Your task to perform on an android device: Play the last video I watched on Youtube Image 0: 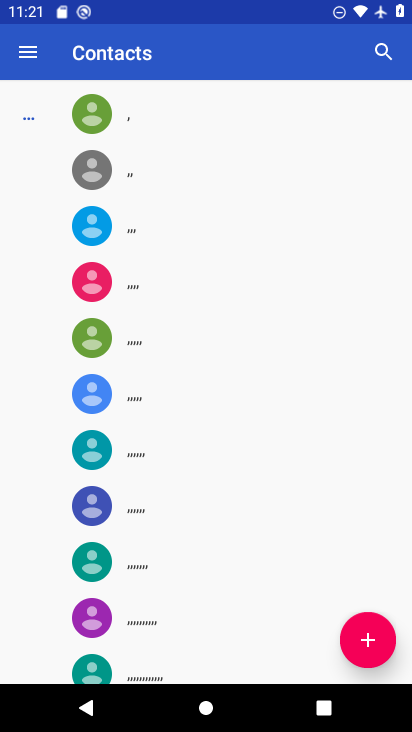
Step 0: press home button
Your task to perform on an android device: Play the last video I watched on Youtube Image 1: 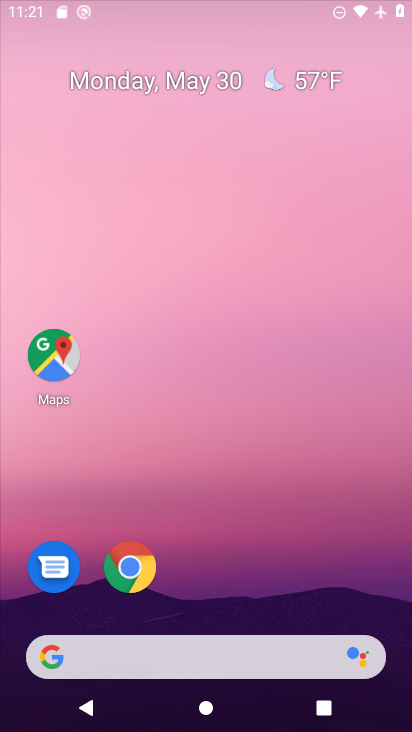
Step 1: drag from (215, 608) to (220, 152)
Your task to perform on an android device: Play the last video I watched on Youtube Image 2: 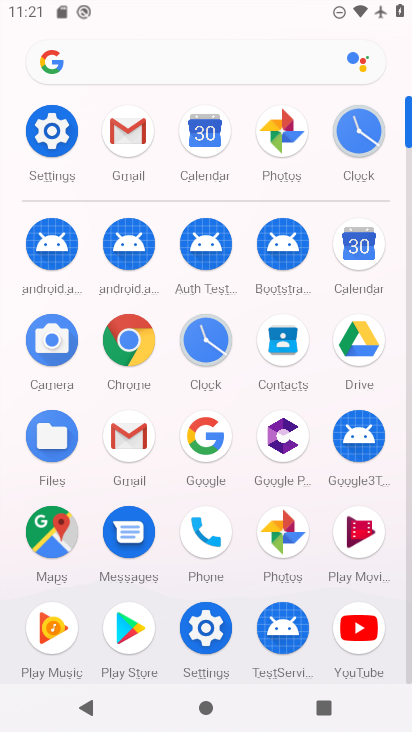
Step 2: click (374, 628)
Your task to perform on an android device: Play the last video I watched on Youtube Image 3: 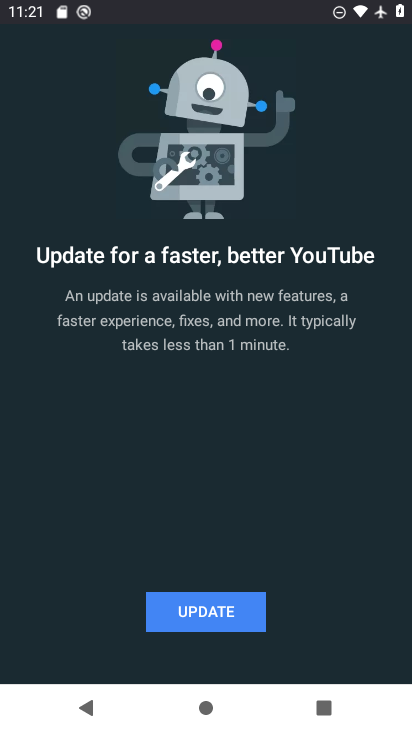
Step 3: click (229, 616)
Your task to perform on an android device: Play the last video I watched on Youtube Image 4: 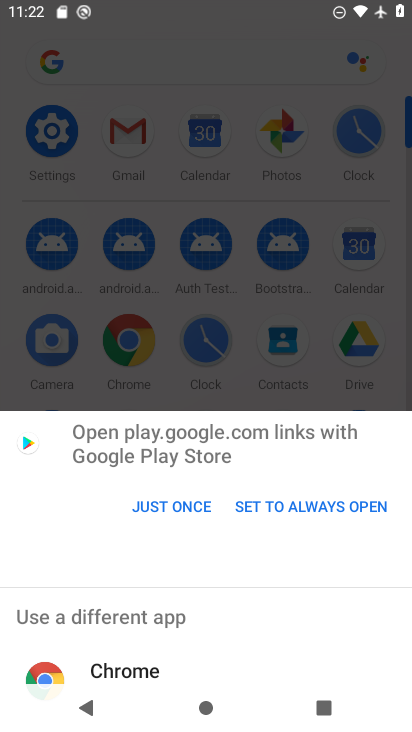
Step 4: click (166, 504)
Your task to perform on an android device: Play the last video I watched on Youtube Image 5: 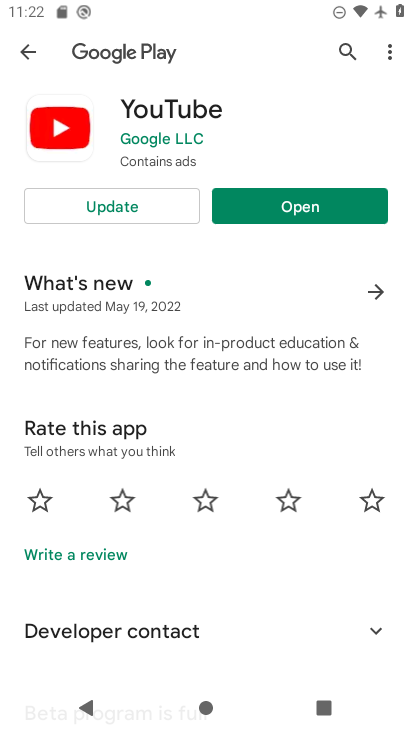
Step 5: click (329, 189)
Your task to perform on an android device: Play the last video I watched on Youtube Image 6: 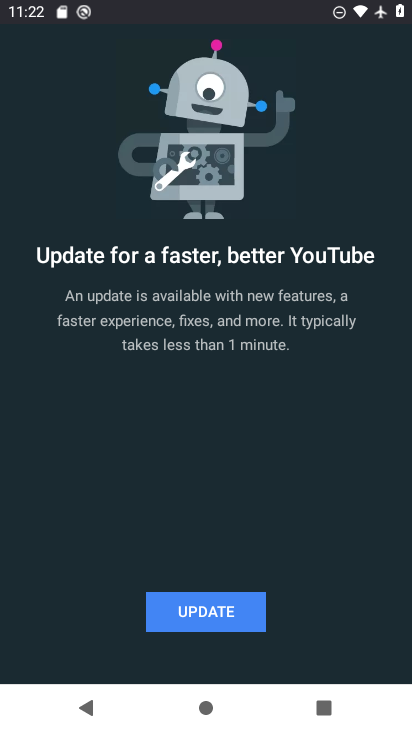
Step 6: click (194, 605)
Your task to perform on an android device: Play the last video I watched on Youtube Image 7: 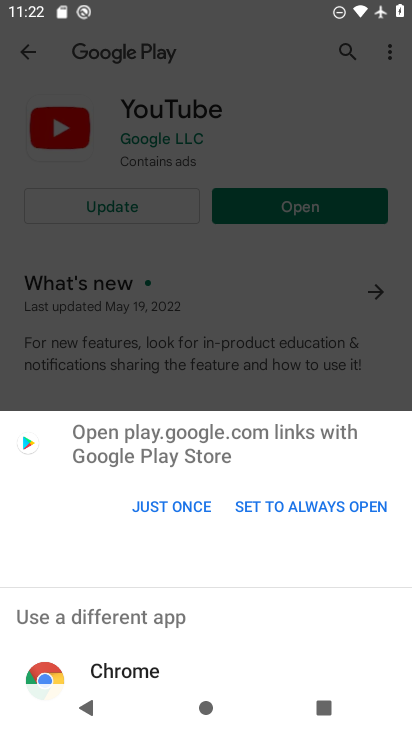
Step 7: click (180, 515)
Your task to perform on an android device: Play the last video I watched on Youtube Image 8: 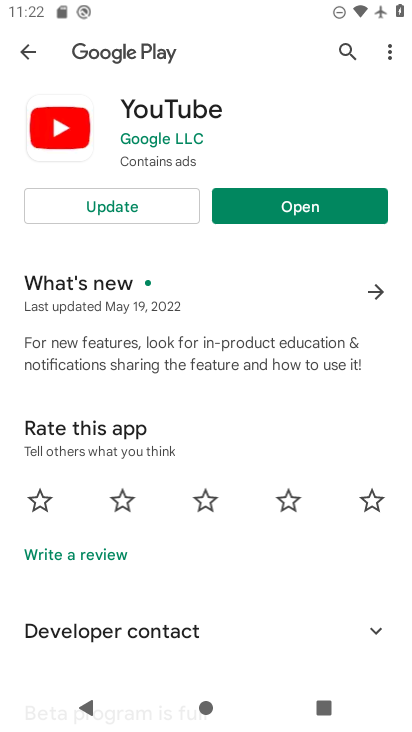
Step 8: click (272, 203)
Your task to perform on an android device: Play the last video I watched on Youtube Image 9: 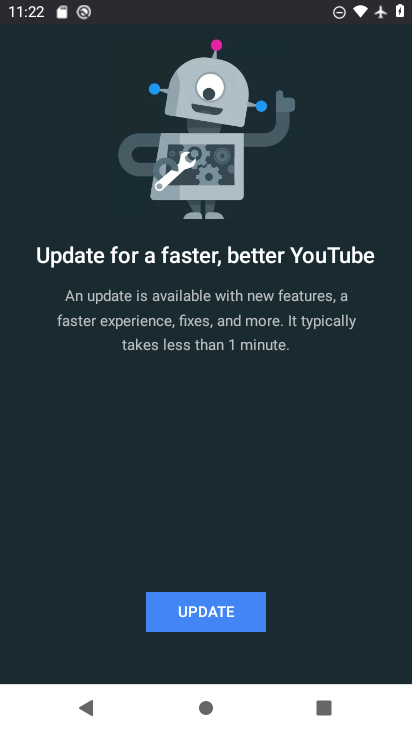
Step 9: click (179, 611)
Your task to perform on an android device: Play the last video I watched on Youtube Image 10: 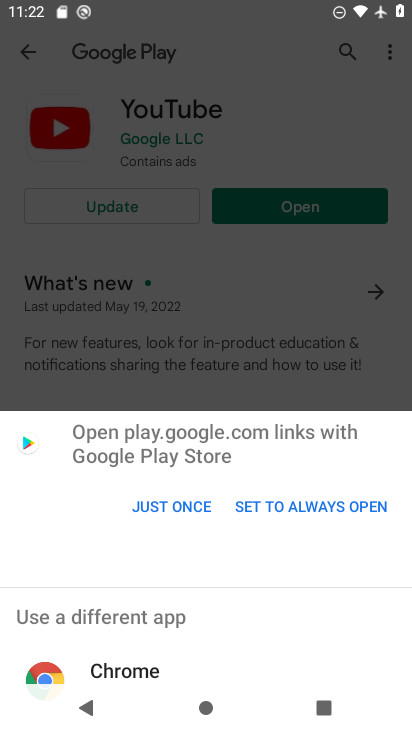
Step 10: click (187, 508)
Your task to perform on an android device: Play the last video I watched on Youtube Image 11: 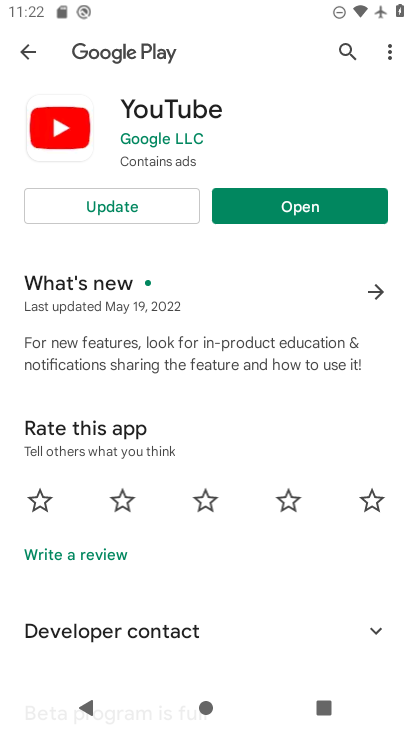
Step 11: click (118, 214)
Your task to perform on an android device: Play the last video I watched on Youtube Image 12: 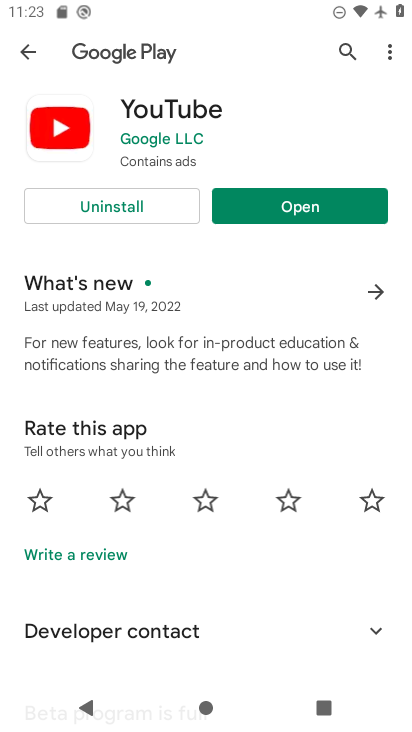
Step 12: click (367, 202)
Your task to perform on an android device: Play the last video I watched on Youtube Image 13: 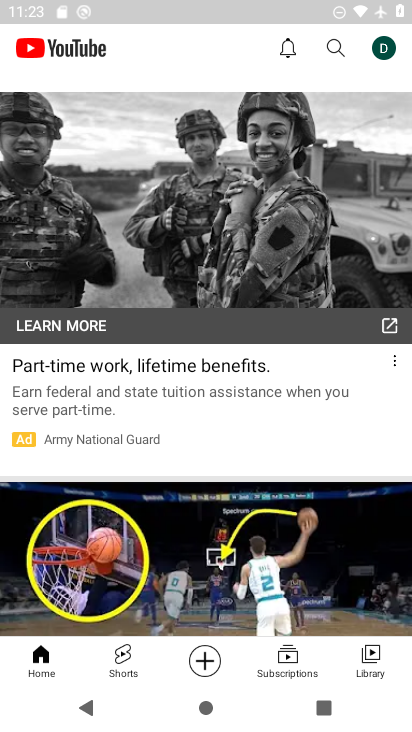
Step 13: click (363, 662)
Your task to perform on an android device: Play the last video I watched on Youtube Image 14: 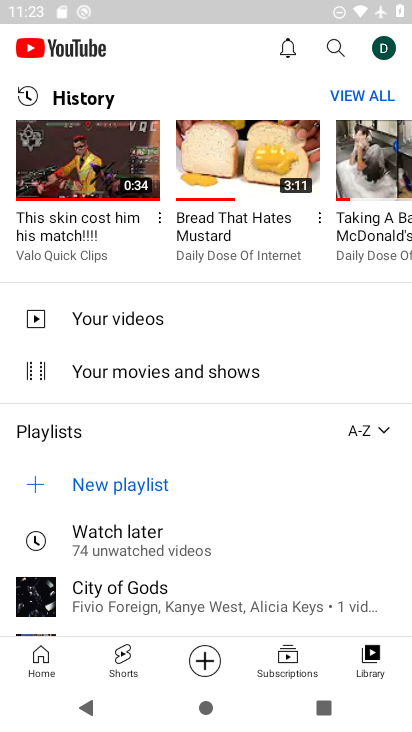
Step 14: click (46, 164)
Your task to perform on an android device: Play the last video I watched on Youtube Image 15: 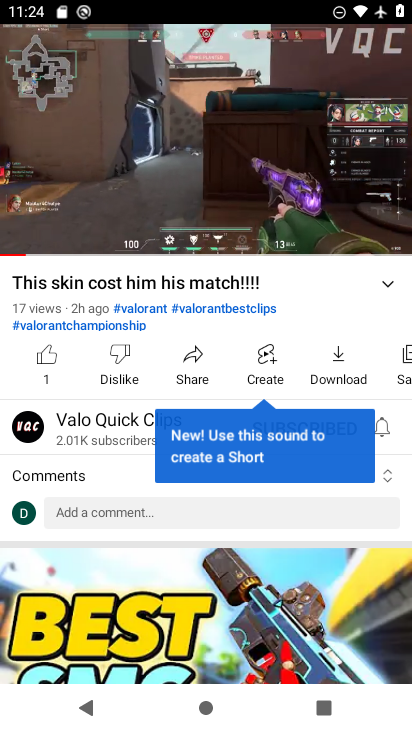
Step 15: task complete